Your task to perform on an android device: Open maps Image 0: 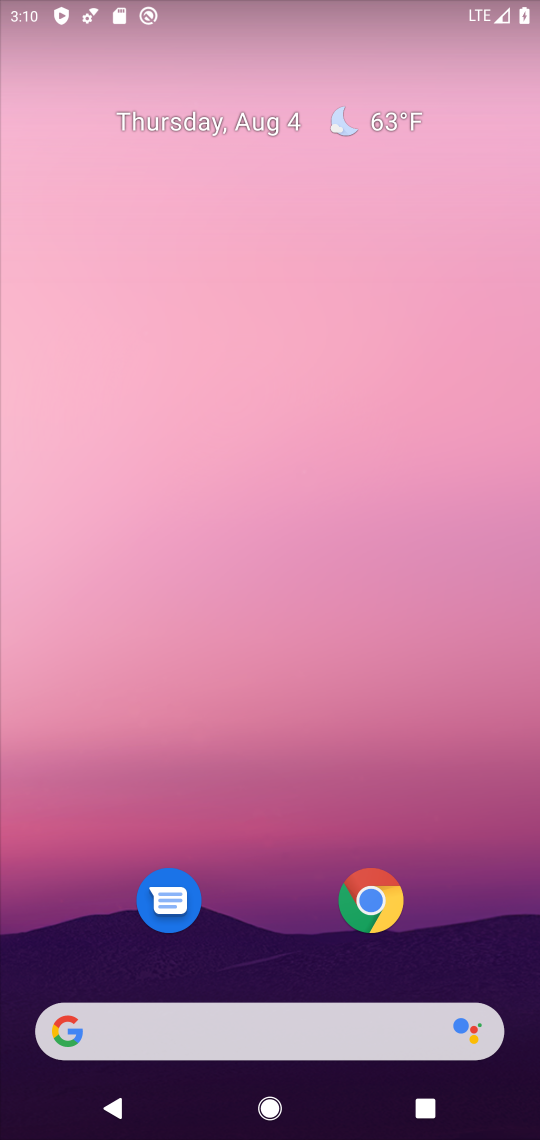
Step 0: drag from (480, 919) to (358, 217)
Your task to perform on an android device: Open maps Image 1: 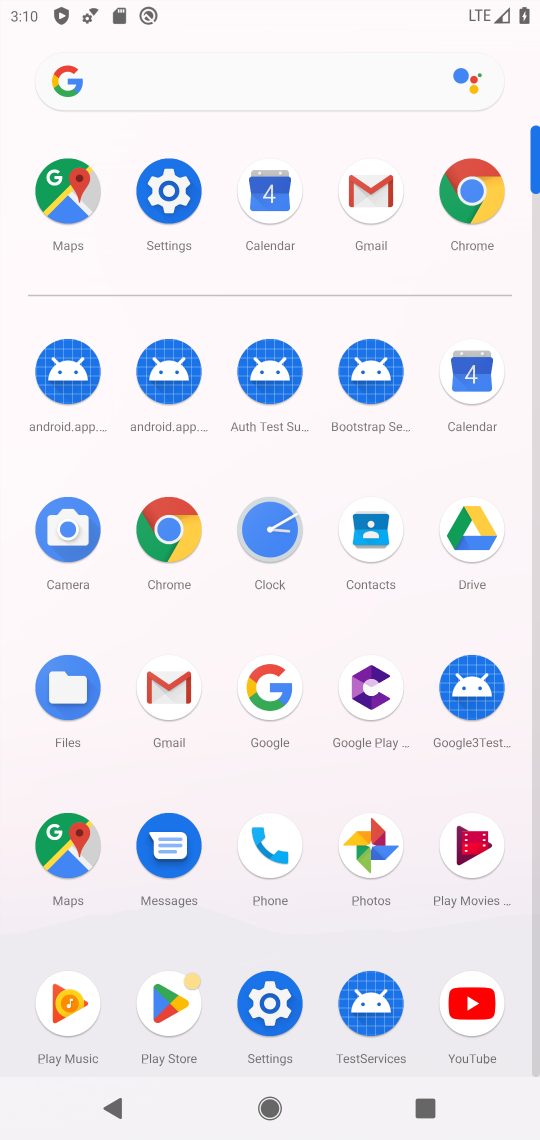
Step 1: click (28, 182)
Your task to perform on an android device: Open maps Image 2: 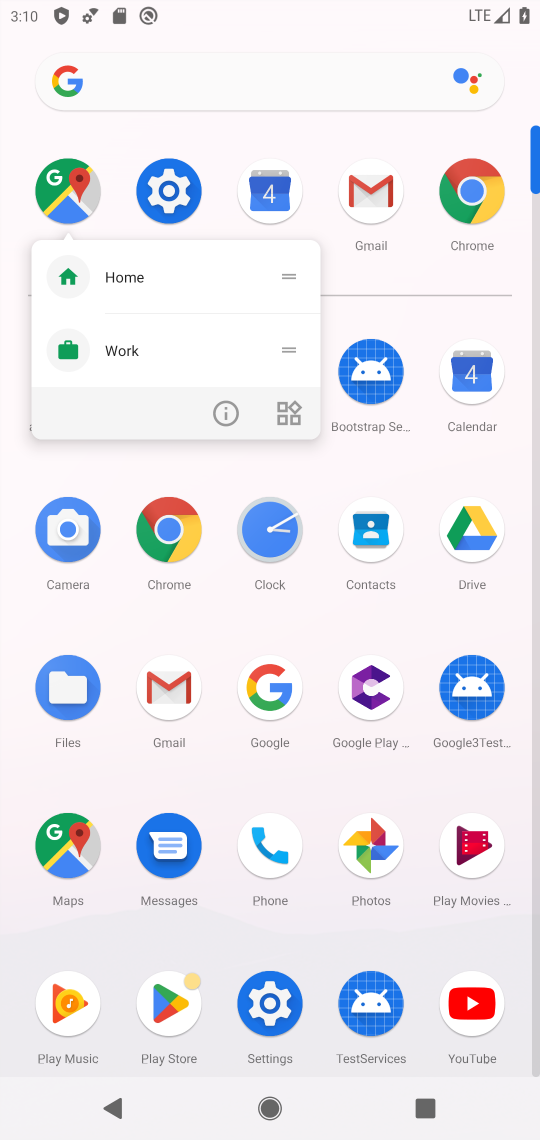
Step 2: click (77, 194)
Your task to perform on an android device: Open maps Image 3: 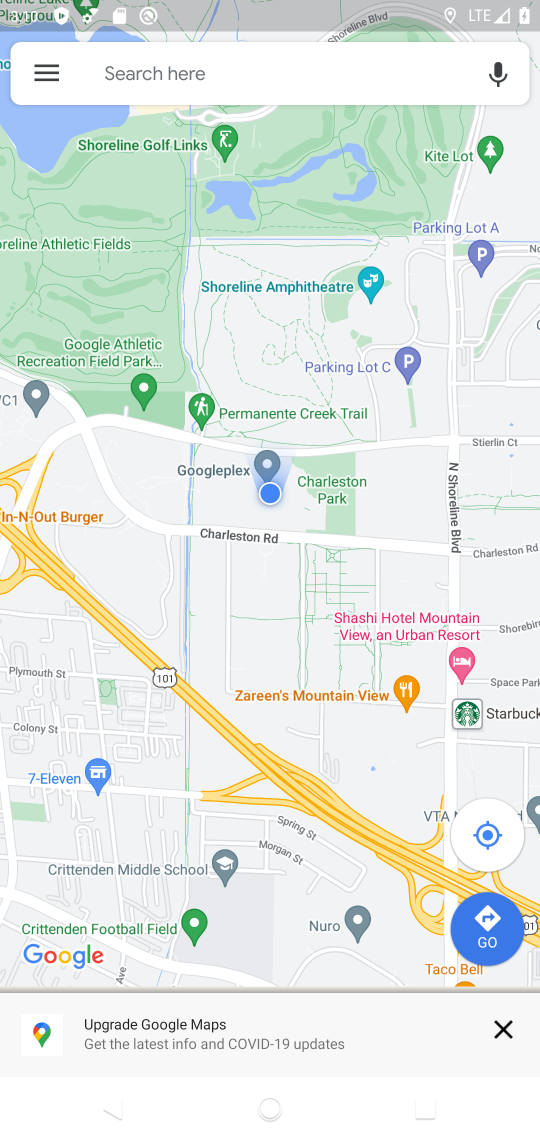
Step 3: task complete